Your task to perform on an android device: Search for dell xps on target.com, select the first entry, and add it to the cart. Image 0: 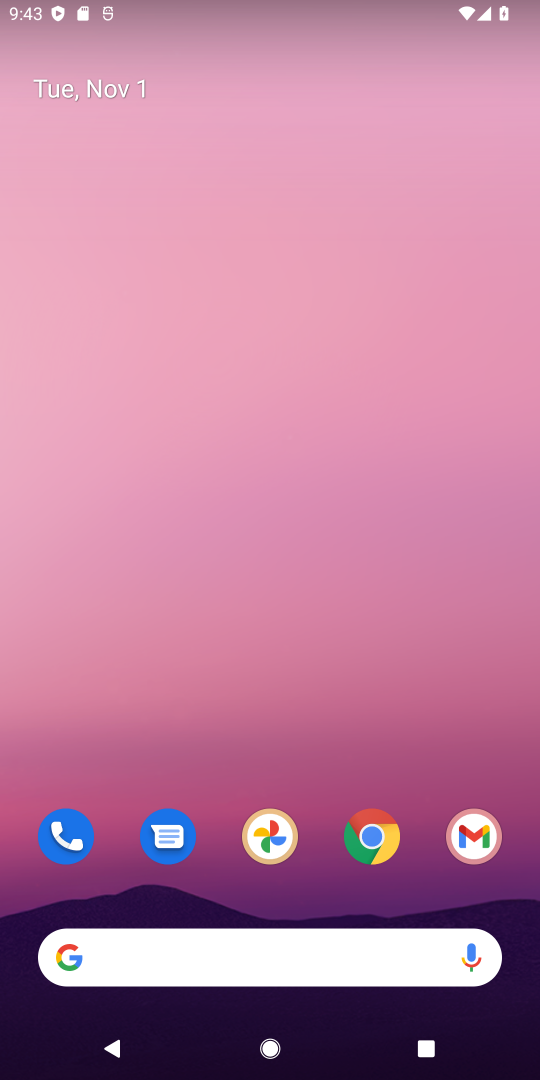
Step 0: click (366, 834)
Your task to perform on an android device: Search for dell xps on target.com, select the first entry, and add it to the cart. Image 1: 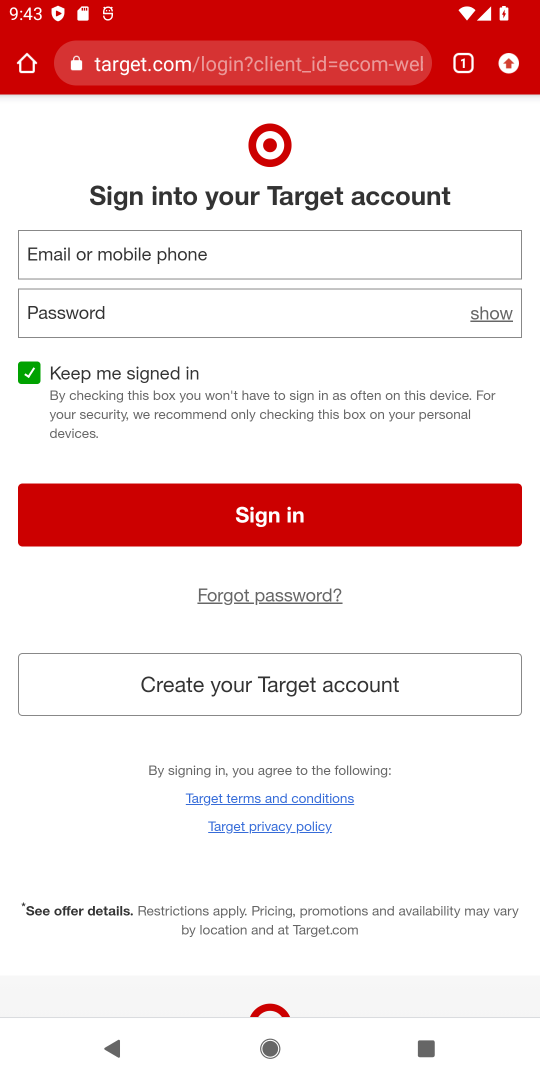
Step 1: click (285, 72)
Your task to perform on an android device: Search for dell xps on target.com, select the first entry, and add it to the cart. Image 2: 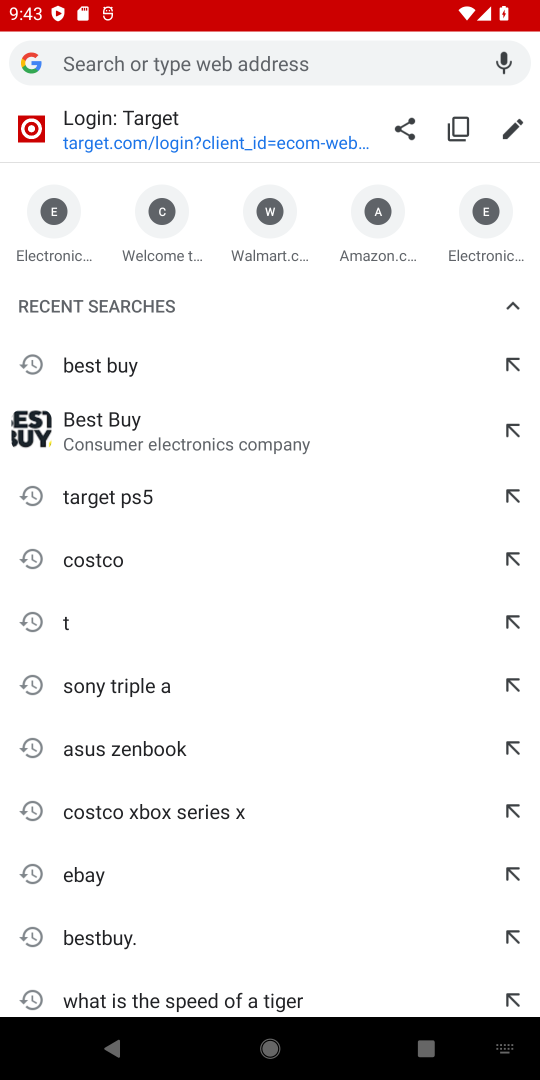
Step 2: type "target.com"
Your task to perform on an android device: Search for dell xps on target.com, select the first entry, and add it to the cart. Image 3: 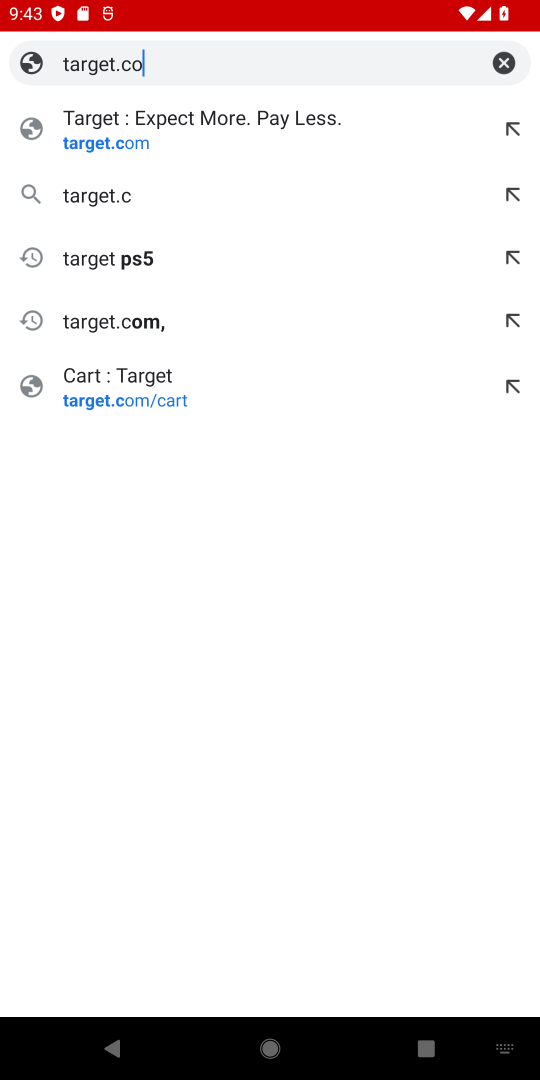
Step 3: type ""
Your task to perform on an android device: Search for dell xps on target.com, select the first entry, and add it to the cart. Image 4: 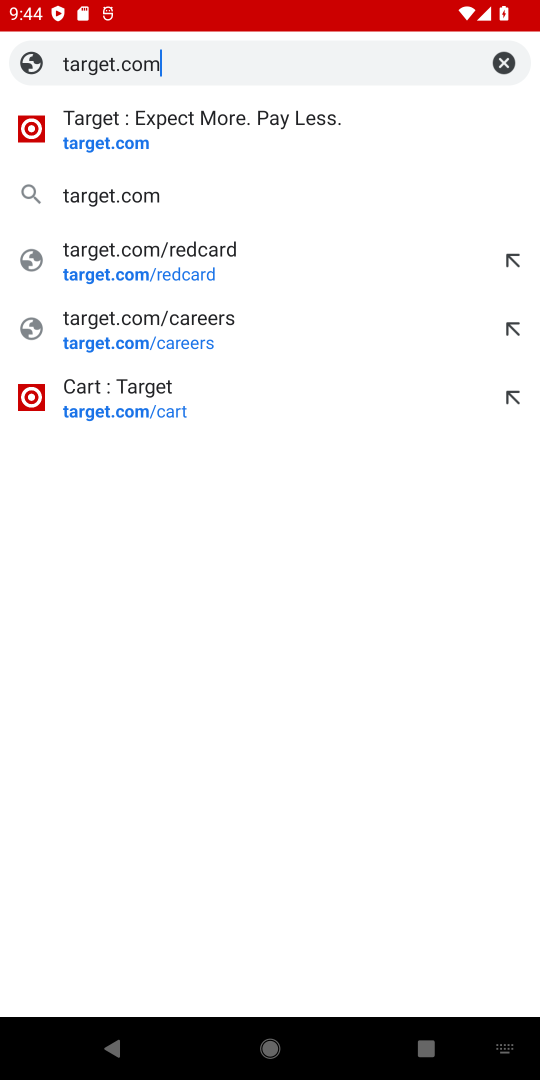
Step 4: click (332, 126)
Your task to perform on an android device: Search for dell xps on target.com, select the first entry, and add it to the cart. Image 5: 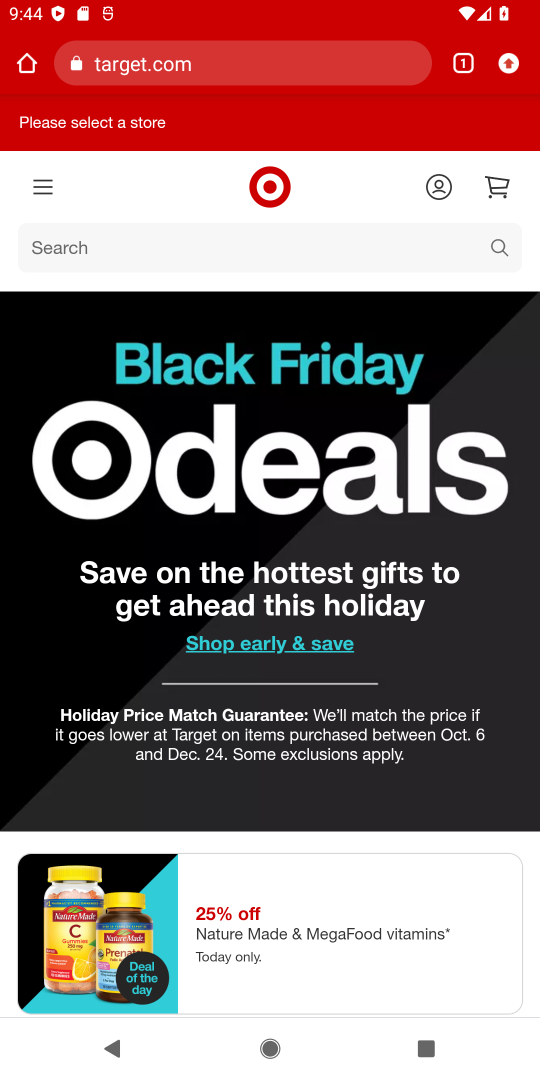
Step 5: click (383, 237)
Your task to perform on an android device: Search for dell xps on target.com, select the first entry, and add it to the cart. Image 6: 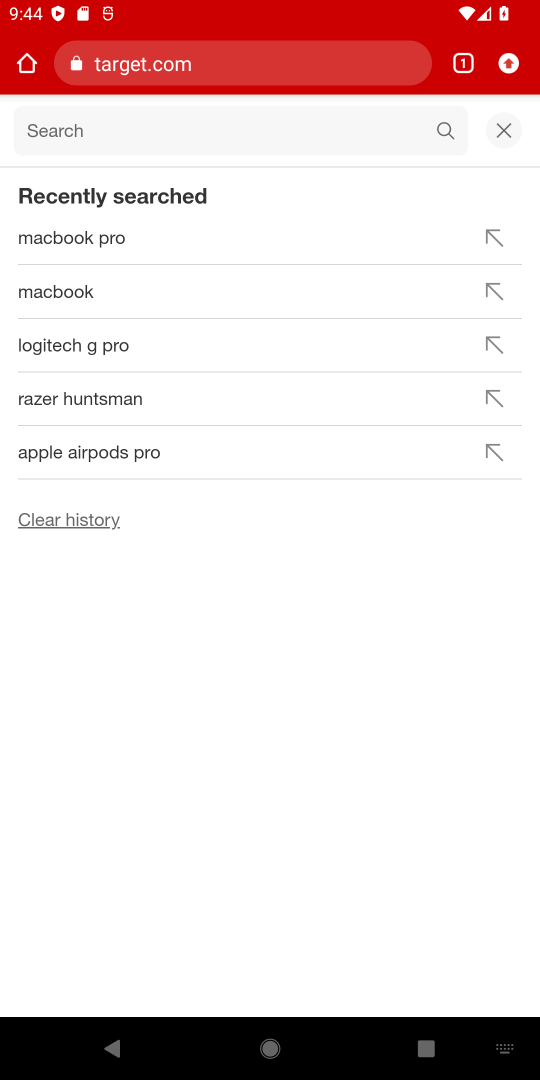
Step 6: type "dell xps"
Your task to perform on an android device: Search for dell xps on target.com, select the first entry, and add it to the cart. Image 7: 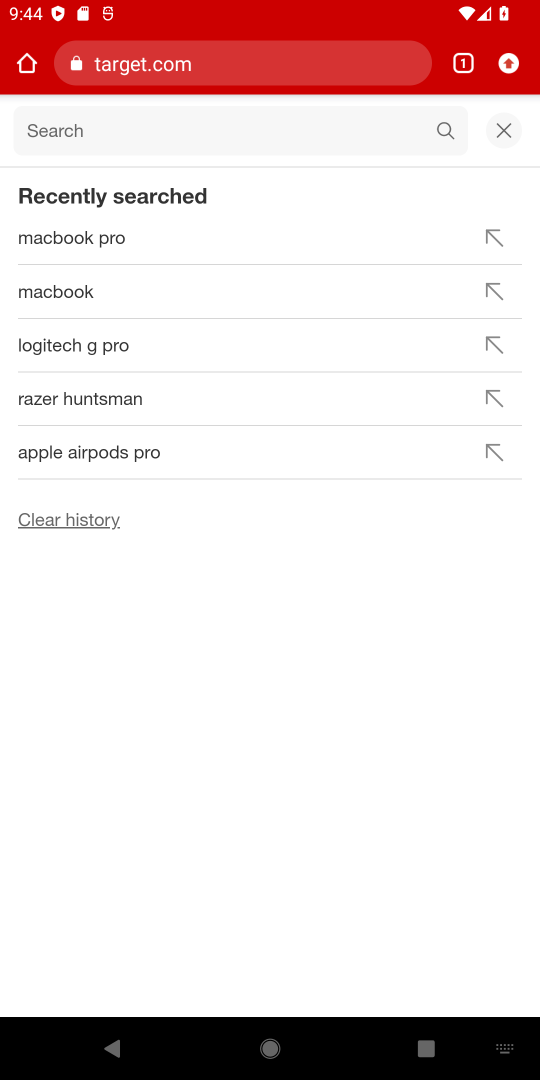
Step 7: type ""
Your task to perform on an android device: Search for dell xps on target.com, select the first entry, and add it to the cart. Image 8: 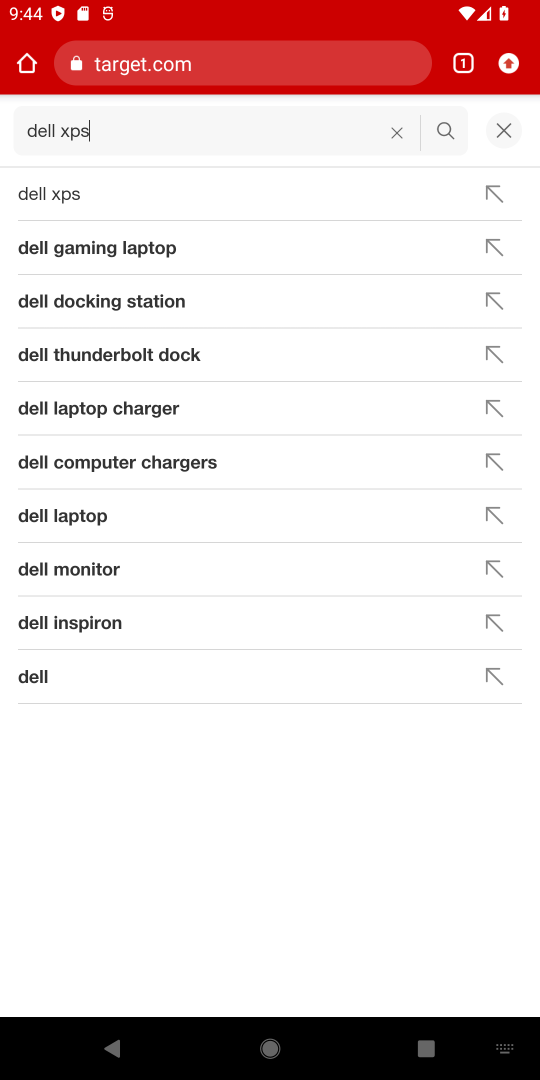
Step 8: click (172, 198)
Your task to perform on an android device: Search for dell xps on target.com, select the first entry, and add it to the cart. Image 9: 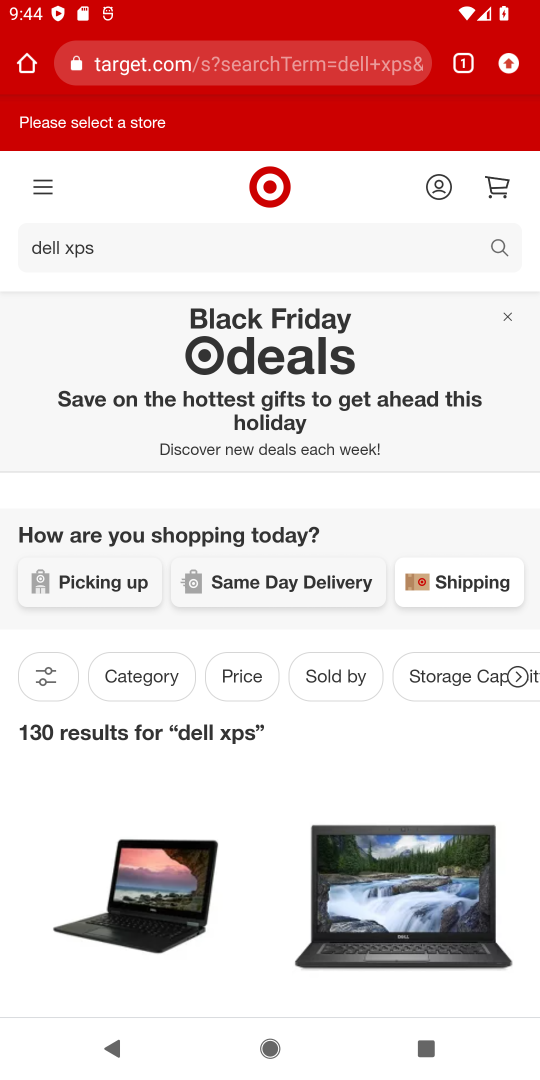
Step 9: drag from (169, 805) to (164, 505)
Your task to perform on an android device: Search for dell xps on target.com, select the first entry, and add it to the cart. Image 10: 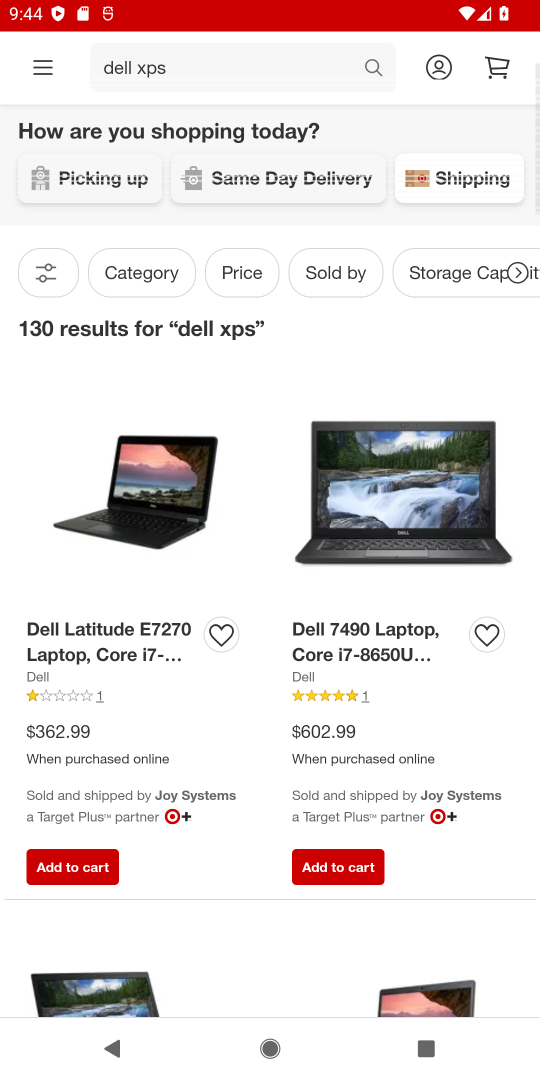
Step 10: click (366, 624)
Your task to perform on an android device: Search for dell xps on target.com, select the first entry, and add it to the cart. Image 11: 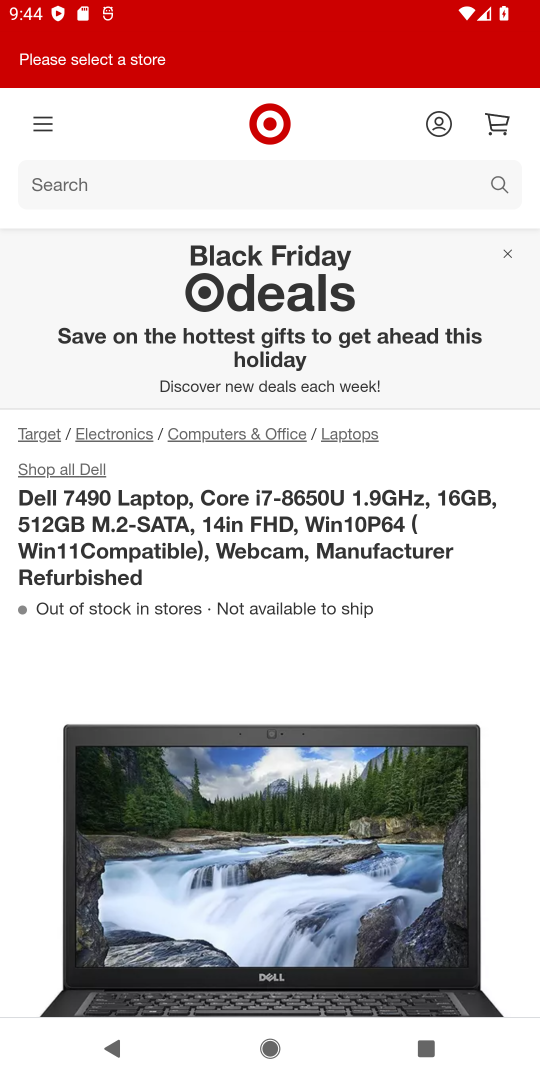
Step 11: drag from (379, 623) to (348, 87)
Your task to perform on an android device: Search for dell xps on target.com, select the first entry, and add it to the cart. Image 12: 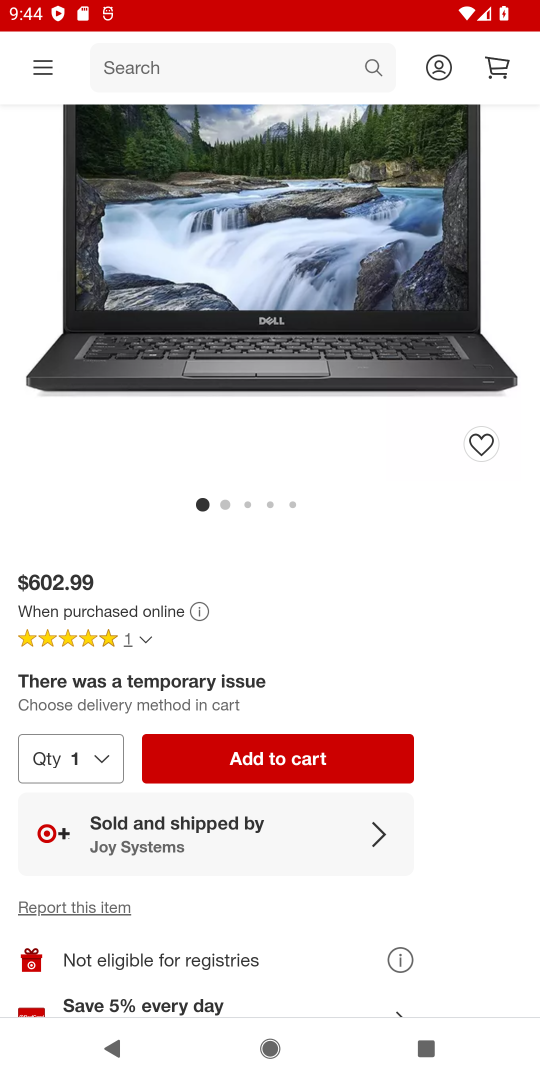
Step 12: click (362, 726)
Your task to perform on an android device: Search for dell xps on target.com, select the first entry, and add it to the cart. Image 13: 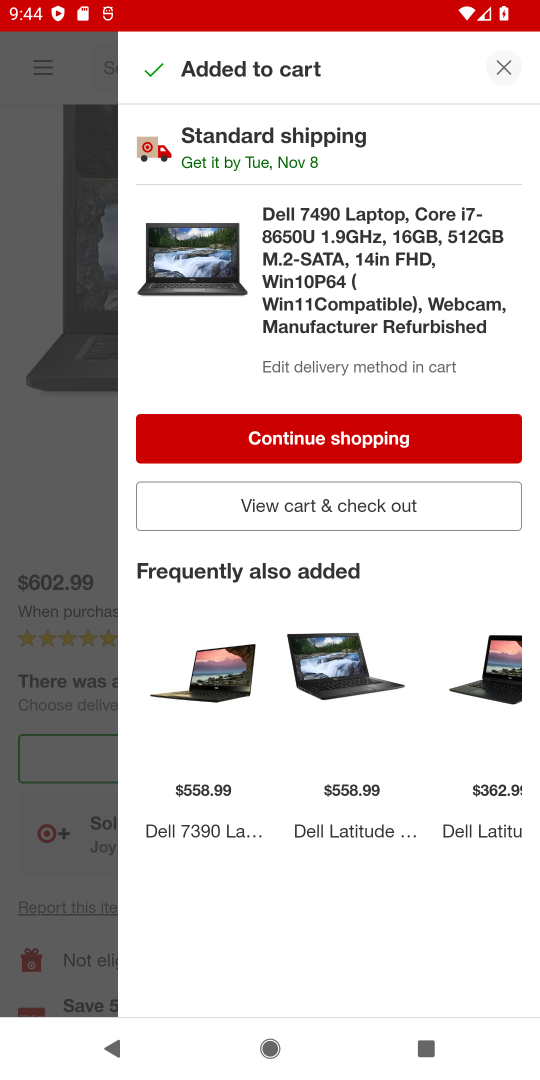
Step 13: click (381, 456)
Your task to perform on an android device: Search for dell xps on target.com, select the first entry, and add it to the cart. Image 14: 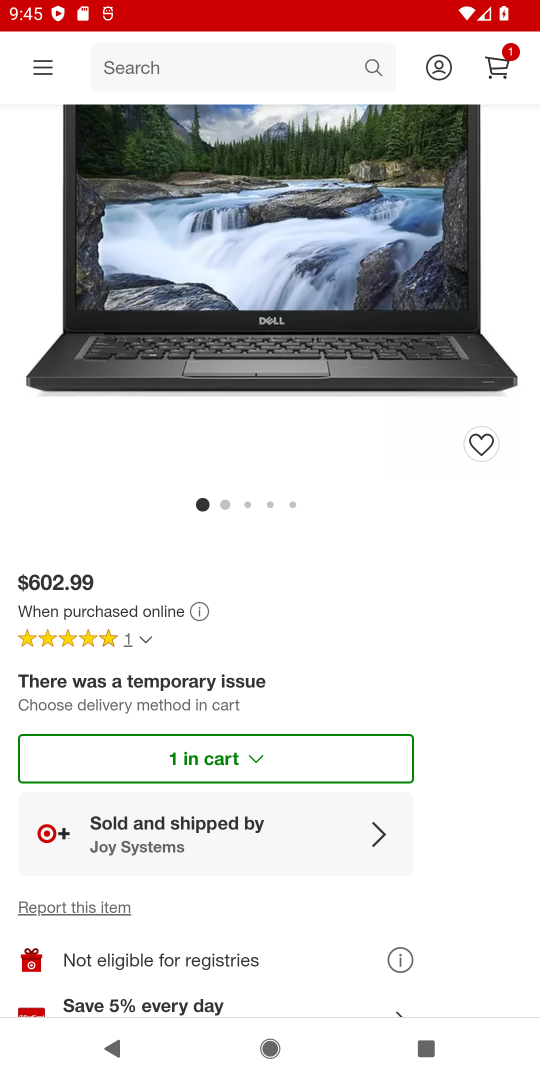
Step 14: task complete